Your task to perform on an android device: Open settings Image 0: 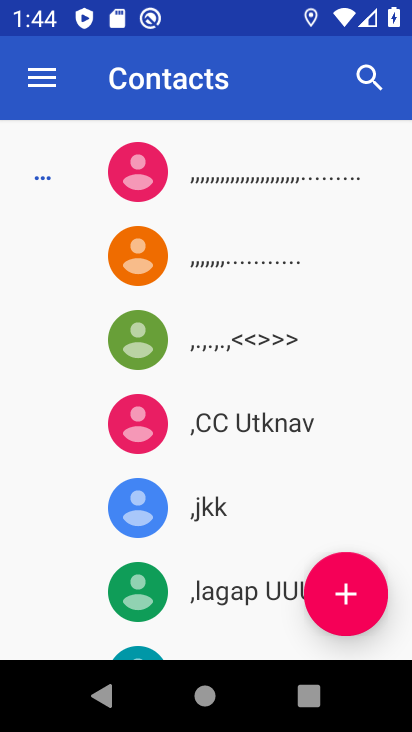
Step 0: press home button
Your task to perform on an android device: Open settings Image 1: 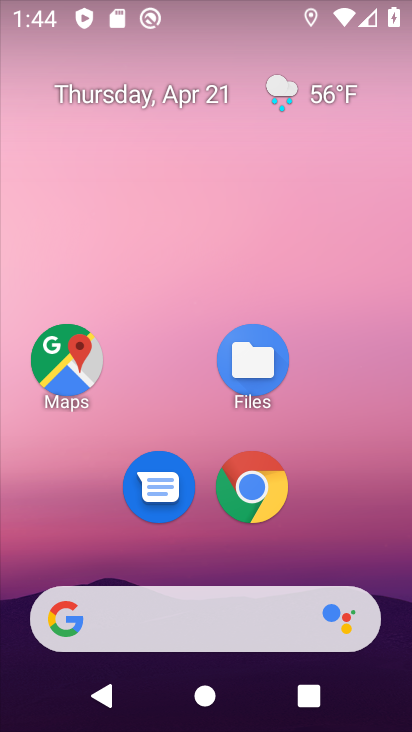
Step 1: drag from (384, 560) to (403, 121)
Your task to perform on an android device: Open settings Image 2: 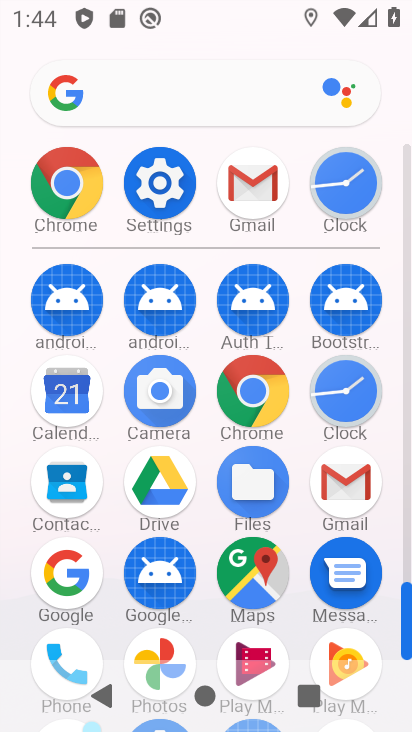
Step 2: click (166, 203)
Your task to perform on an android device: Open settings Image 3: 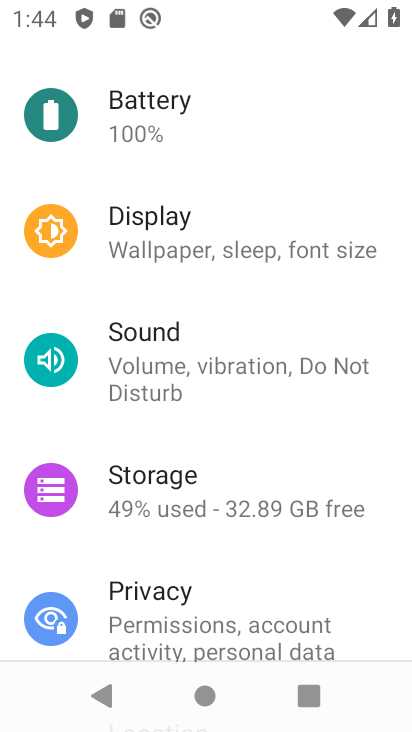
Step 3: task complete